Your task to perform on an android device: Open wifi settings Image 0: 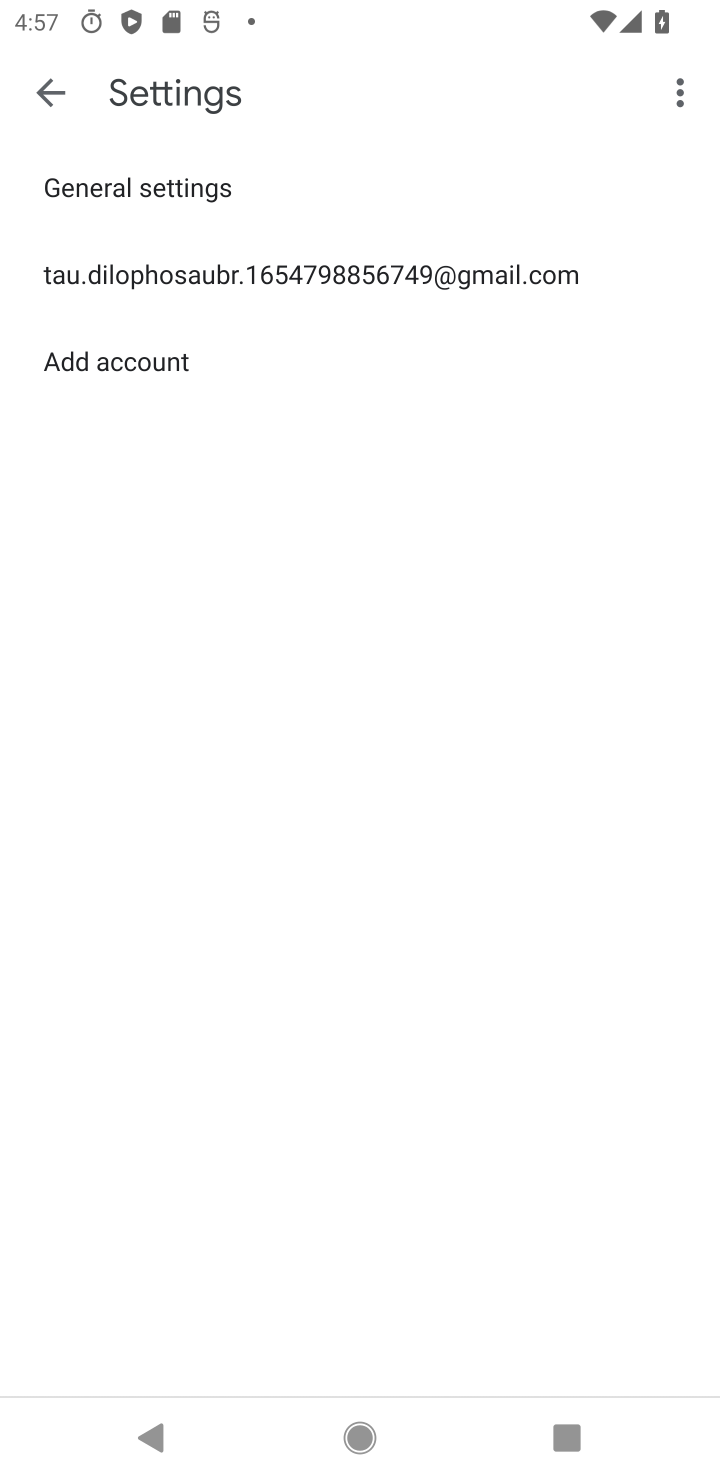
Step 0: click (51, 65)
Your task to perform on an android device: Open wifi settings Image 1: 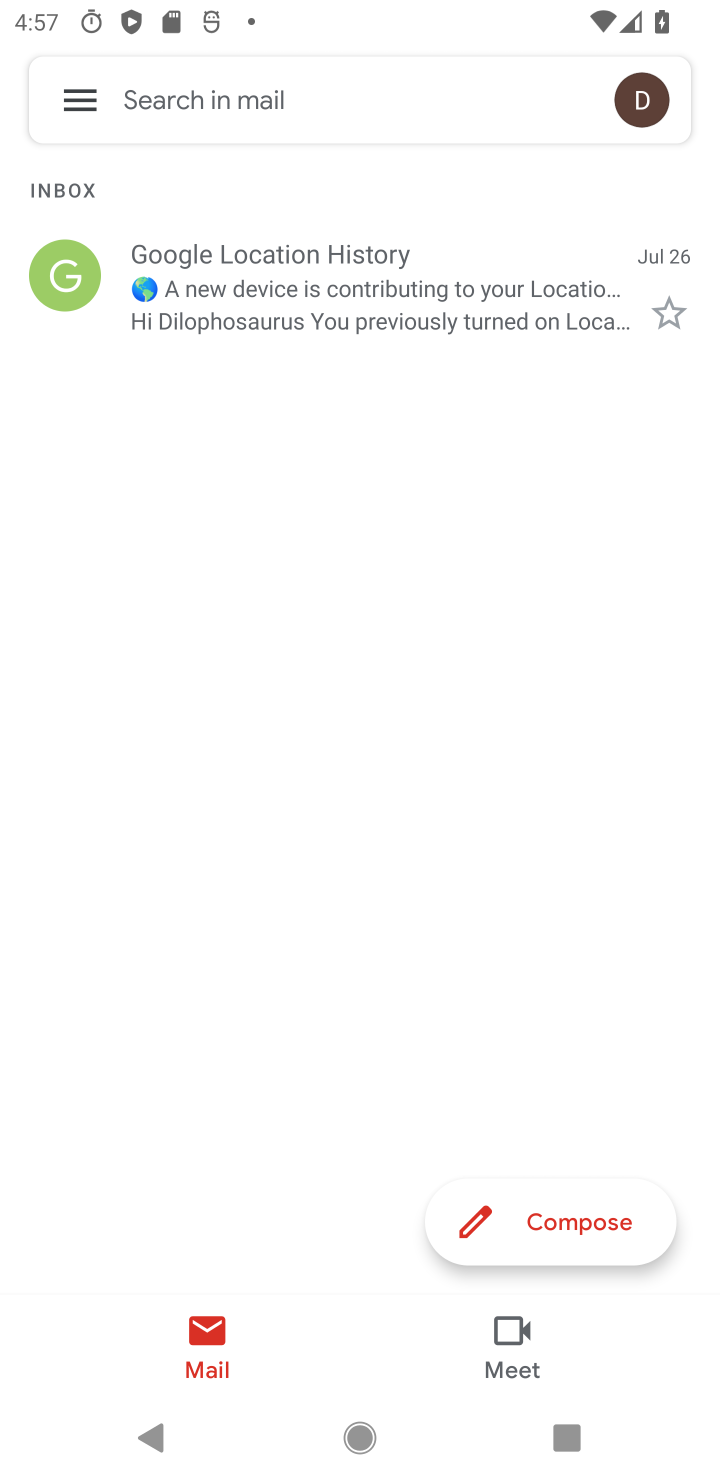
Step 1: press back button
Your task to perform on an android device: Open wifi settings Image 2: 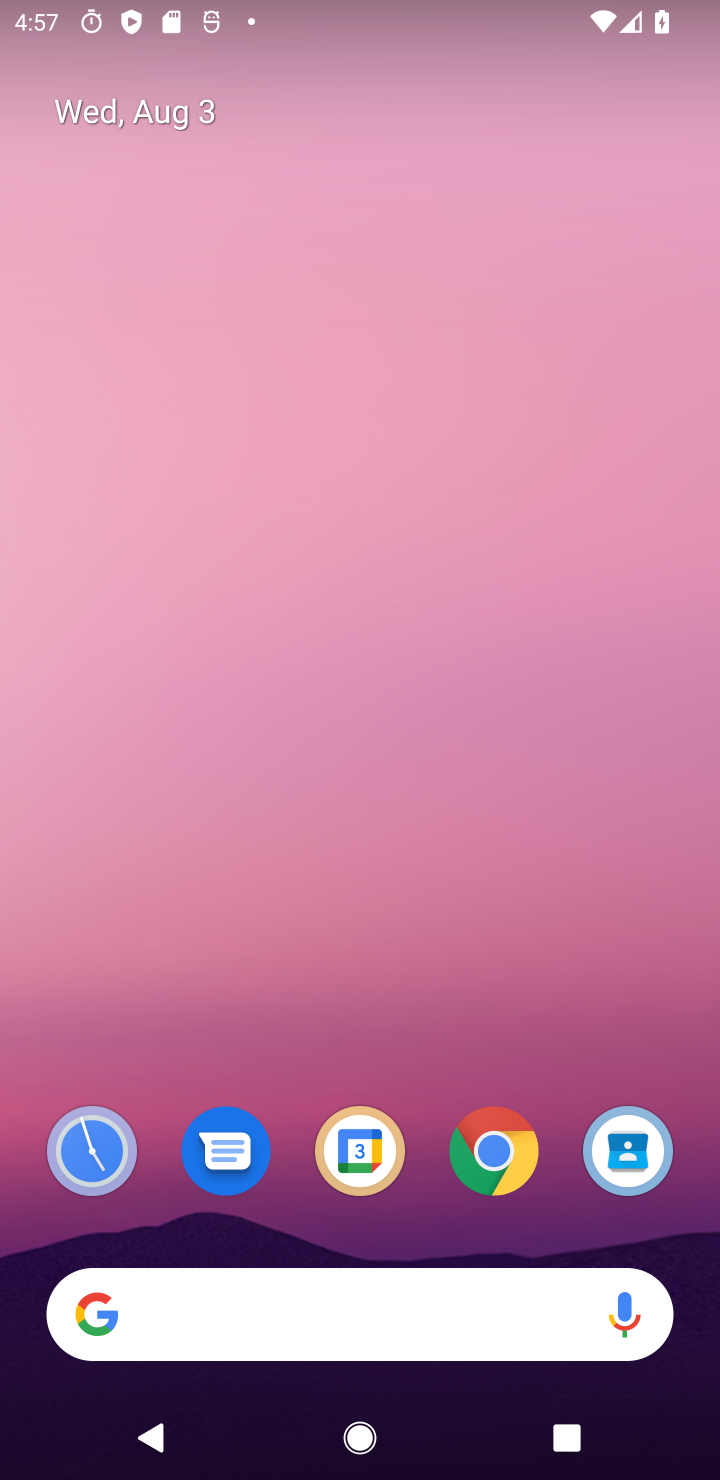
Step 2: drag from (369, 1146) to (367, 488)
Your task to perform on an android device: Open wifi settings Image 3: 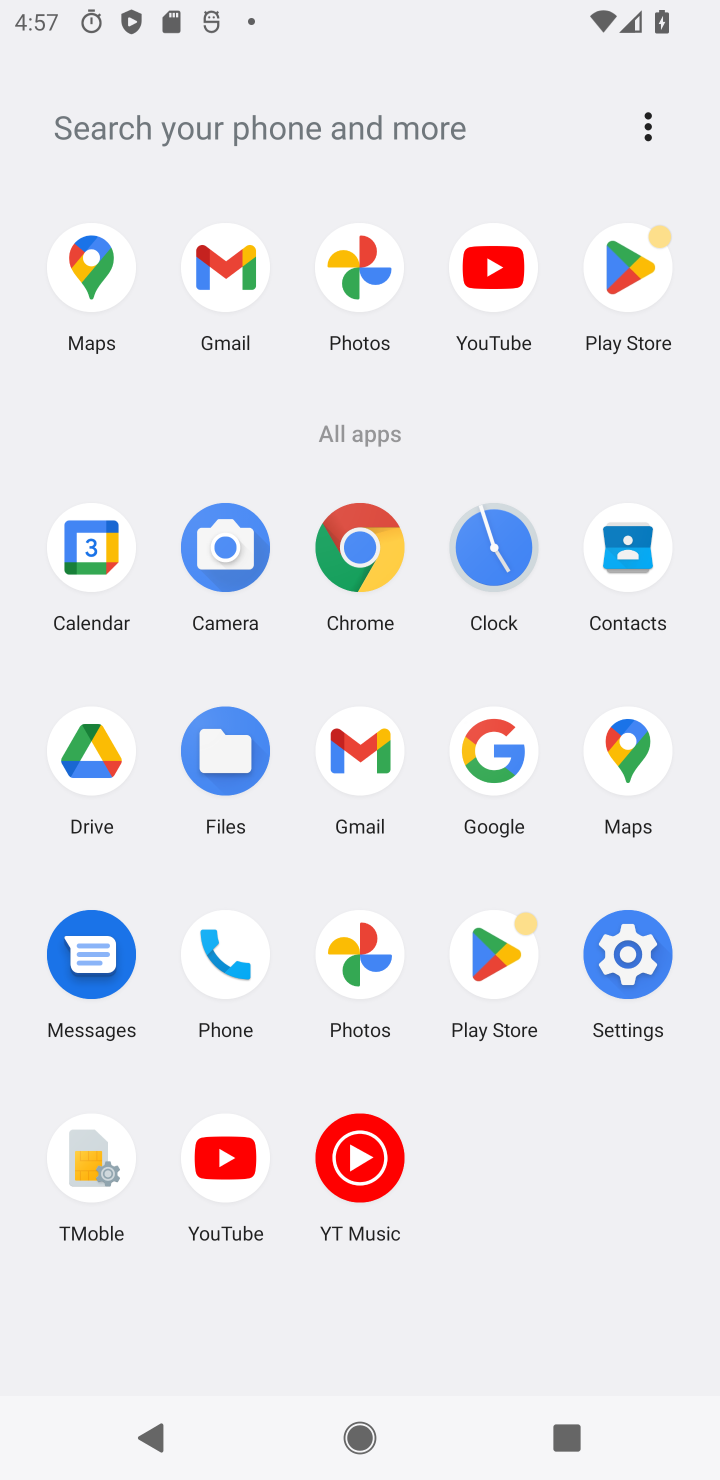
Step 3: click (627, 938)
Your task to perform on an android device: Open wifi settings Image 4: 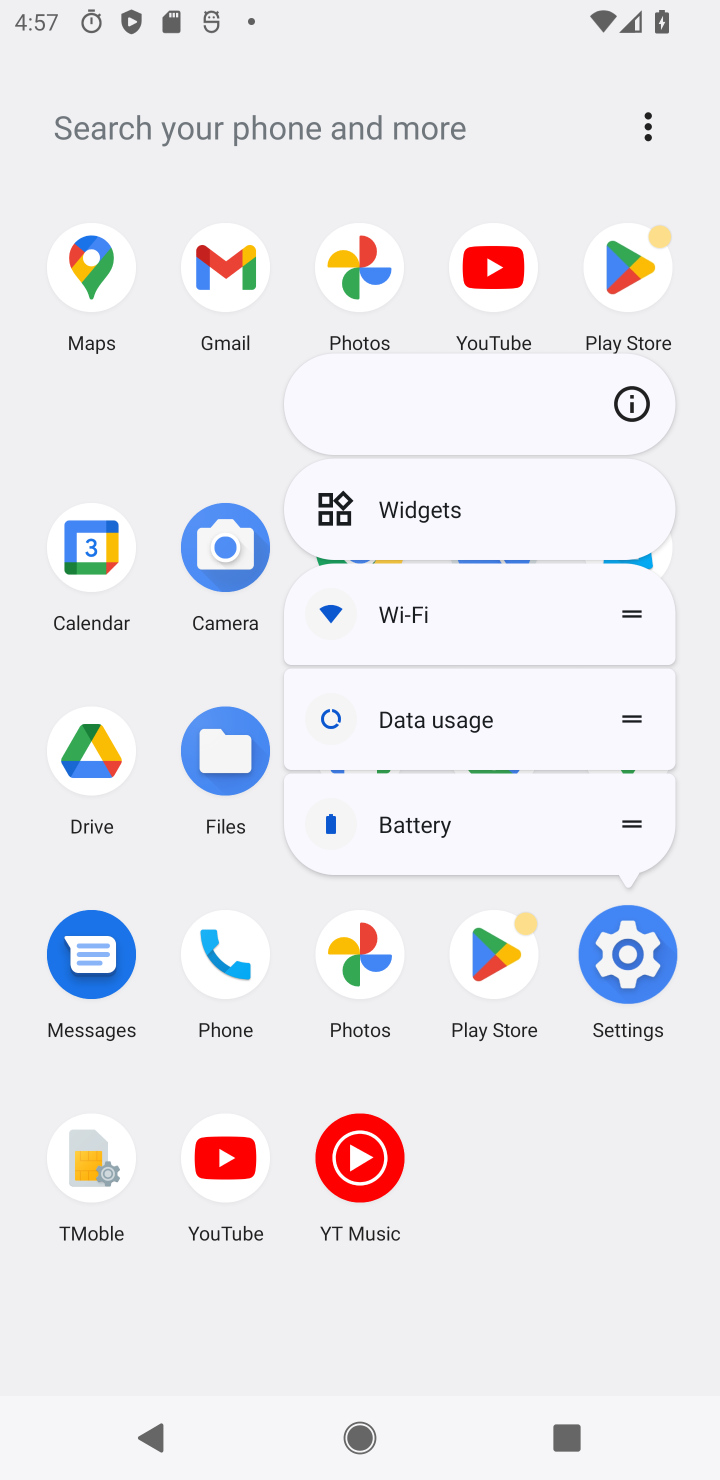
Step 4: click (627, 938)
Your task to perform on an android device: Open wifi settings Image 5: 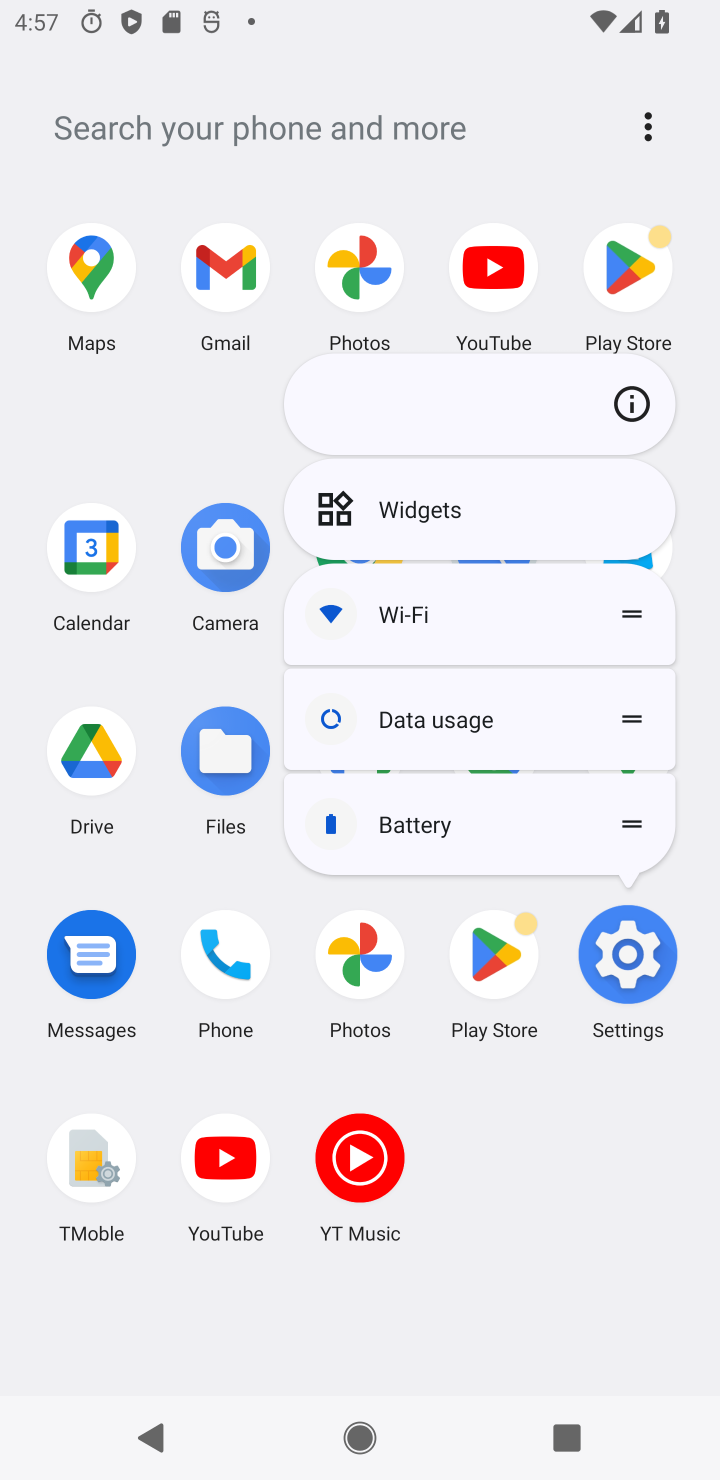
Step 5: click (632, 940)
Your task to perform on an android device: Open wifi settings Image 6: 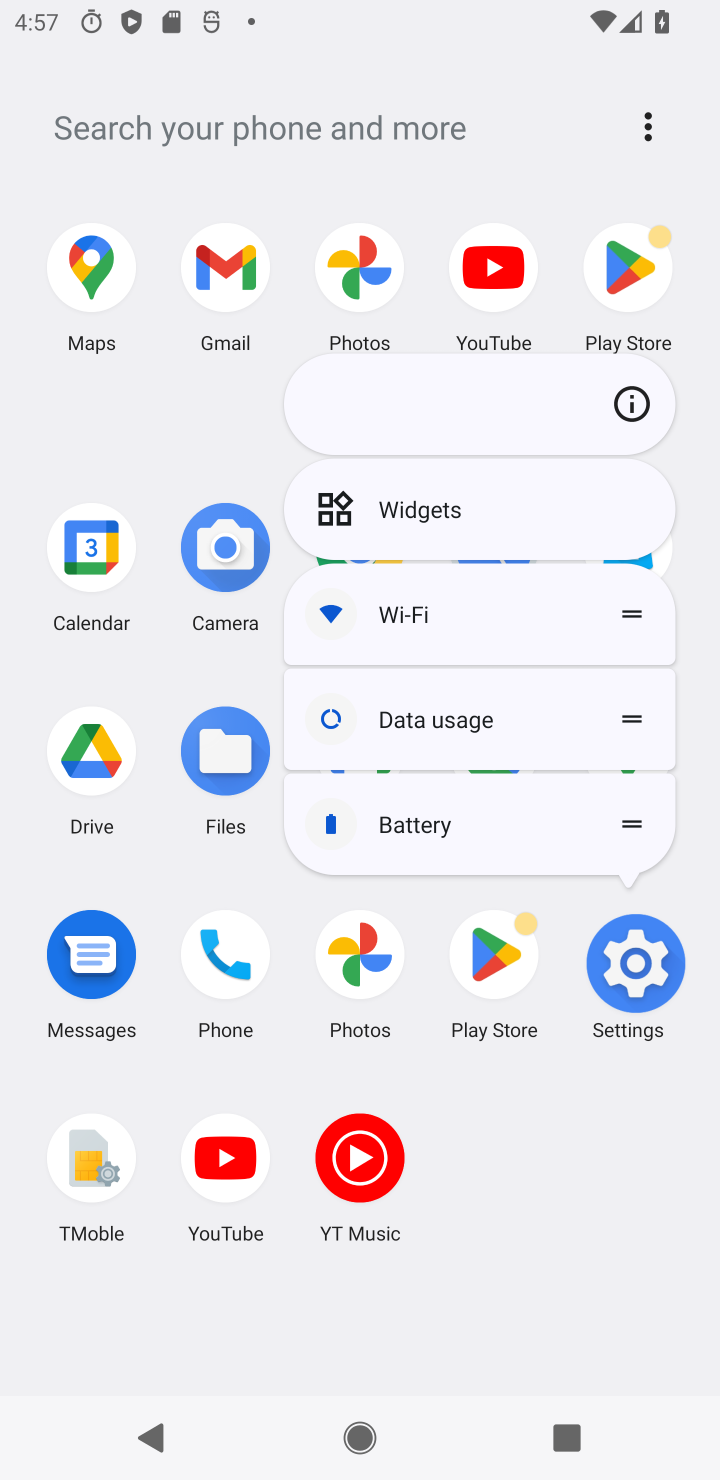
Step 6: click (640, 949)
Your task to perform on an android device: Open wifi settings Image 7: 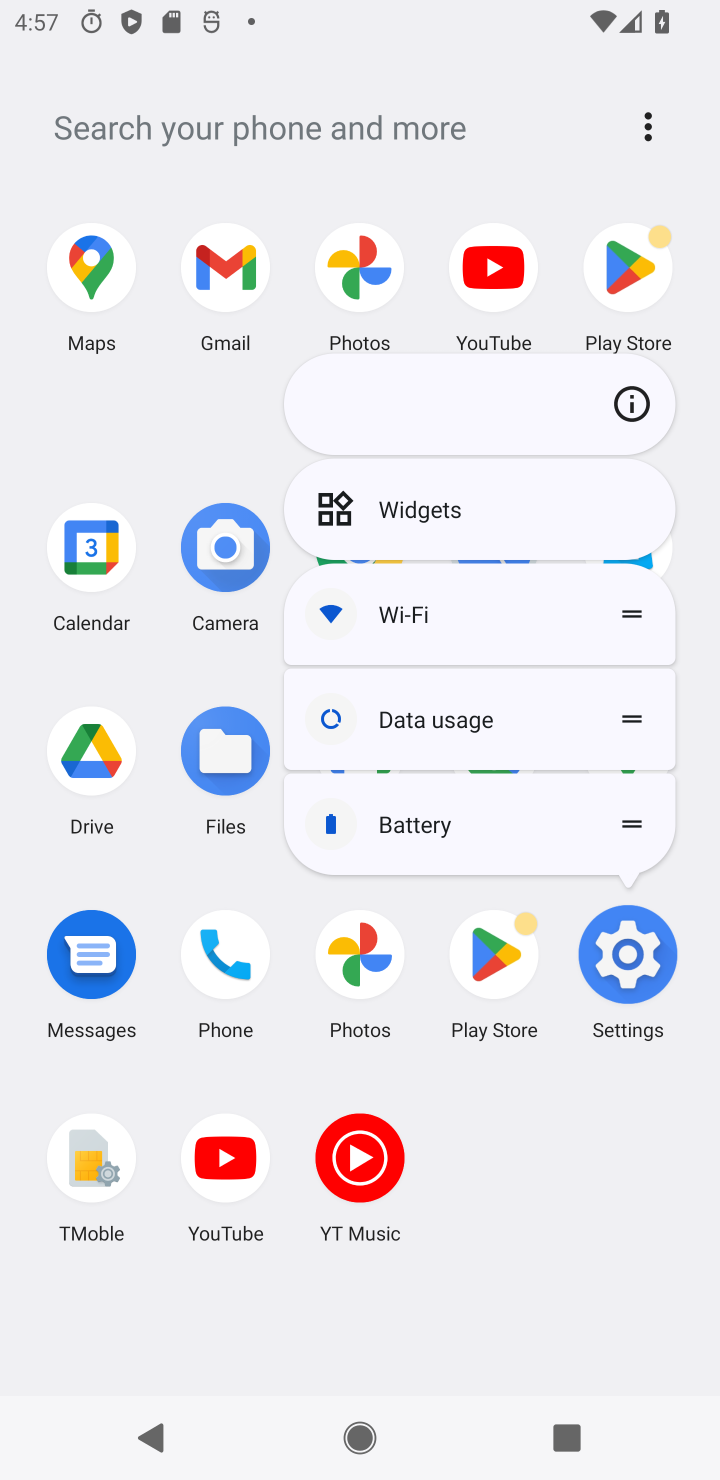
Step 7: click (640, 959)
Your task to perform on an android device: Open wifi settings Image 8: 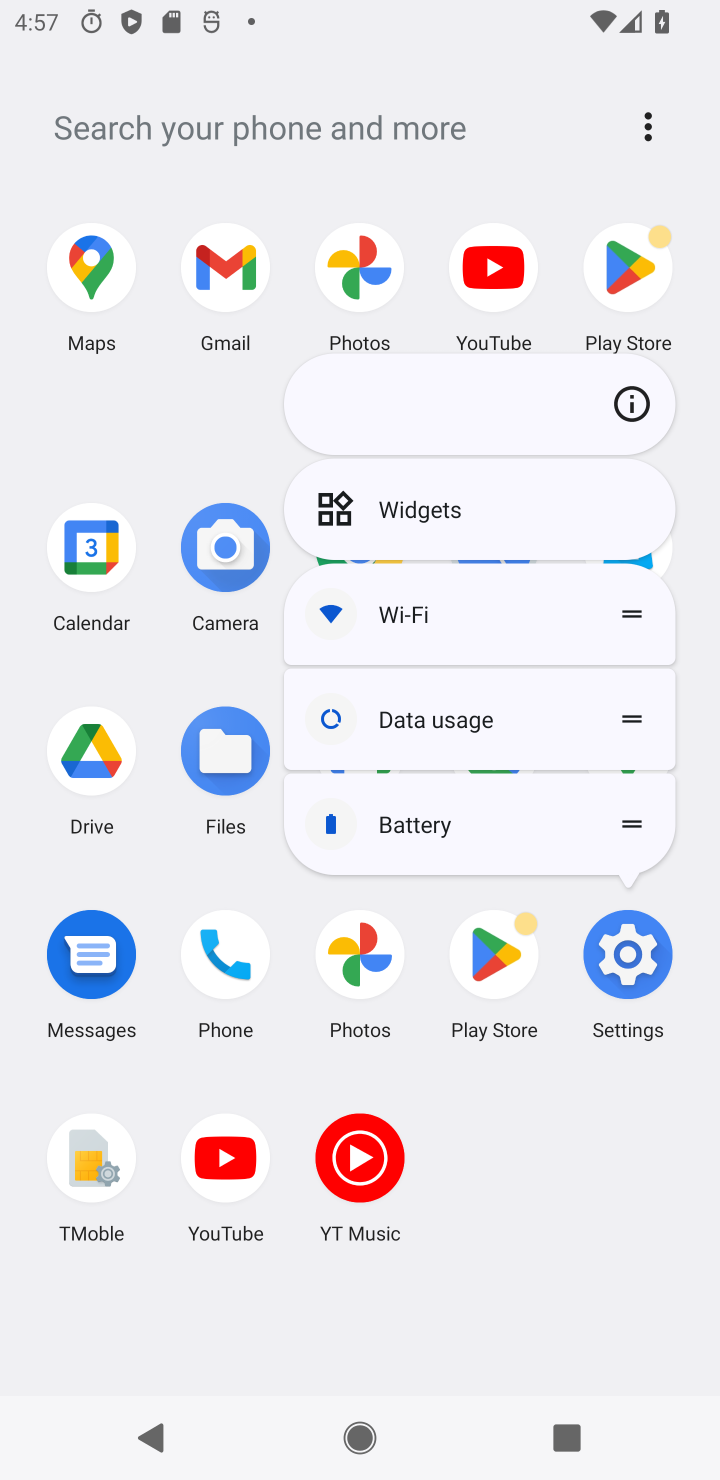
Step 8: click (383, 639)
Your task to perform on an android device: Open wifi settings Image 9: 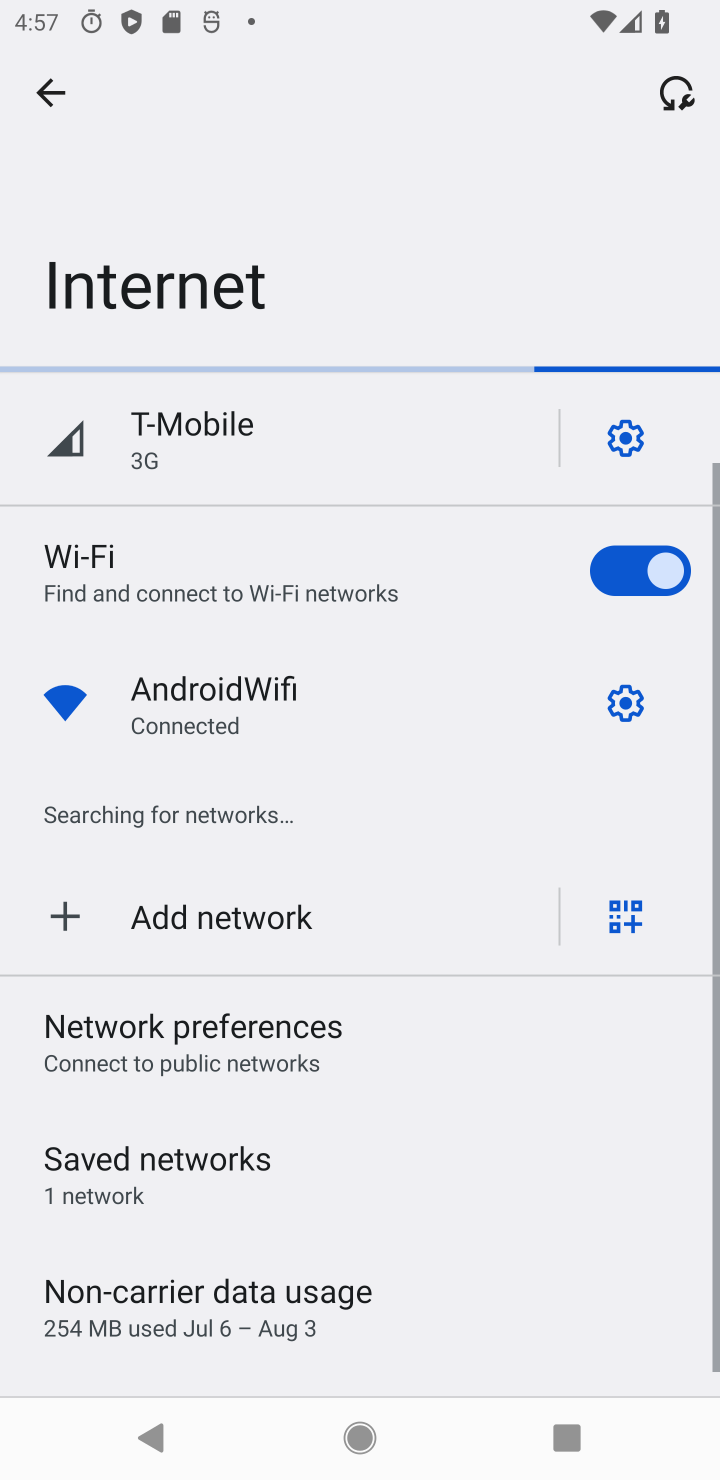
Step 9: drag from (283, 1077) to (241, 514)
Your task to perform on an android device: Open wifi settings Image 10: 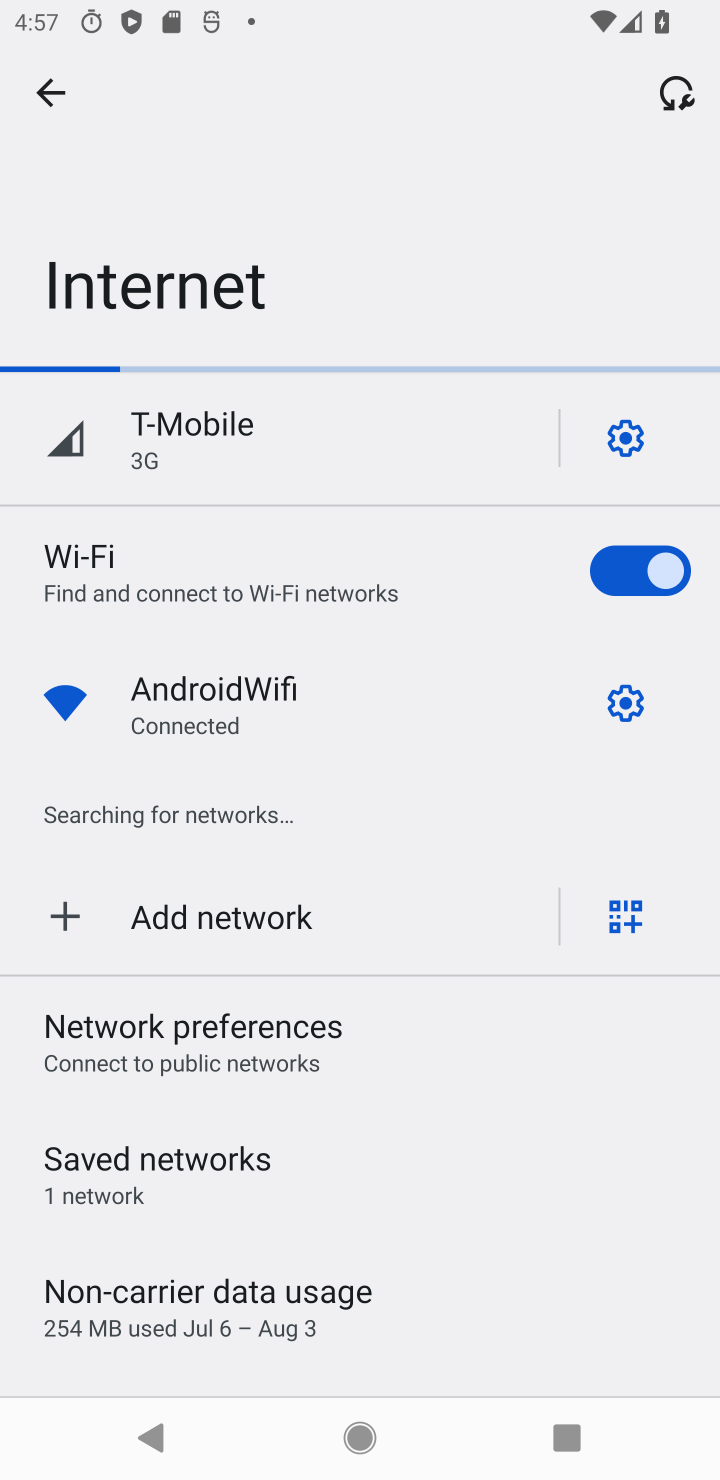
Step 10: drag from (376, 1052) to (356, 547)
Your task to perform on an android device: Open wifi settings Image 11: 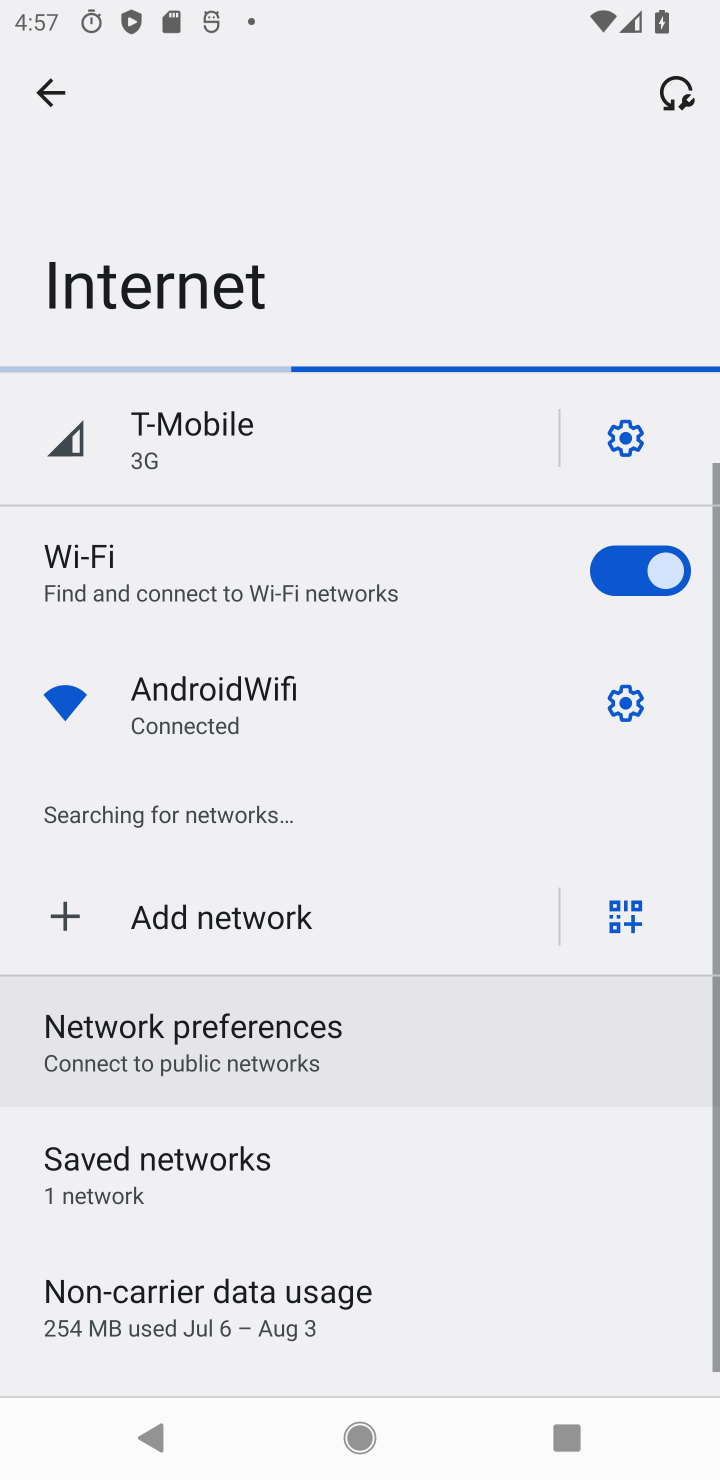
Step 11: click (453, 741)
Your task to perform on an android device: Open wifi settings Image 12: 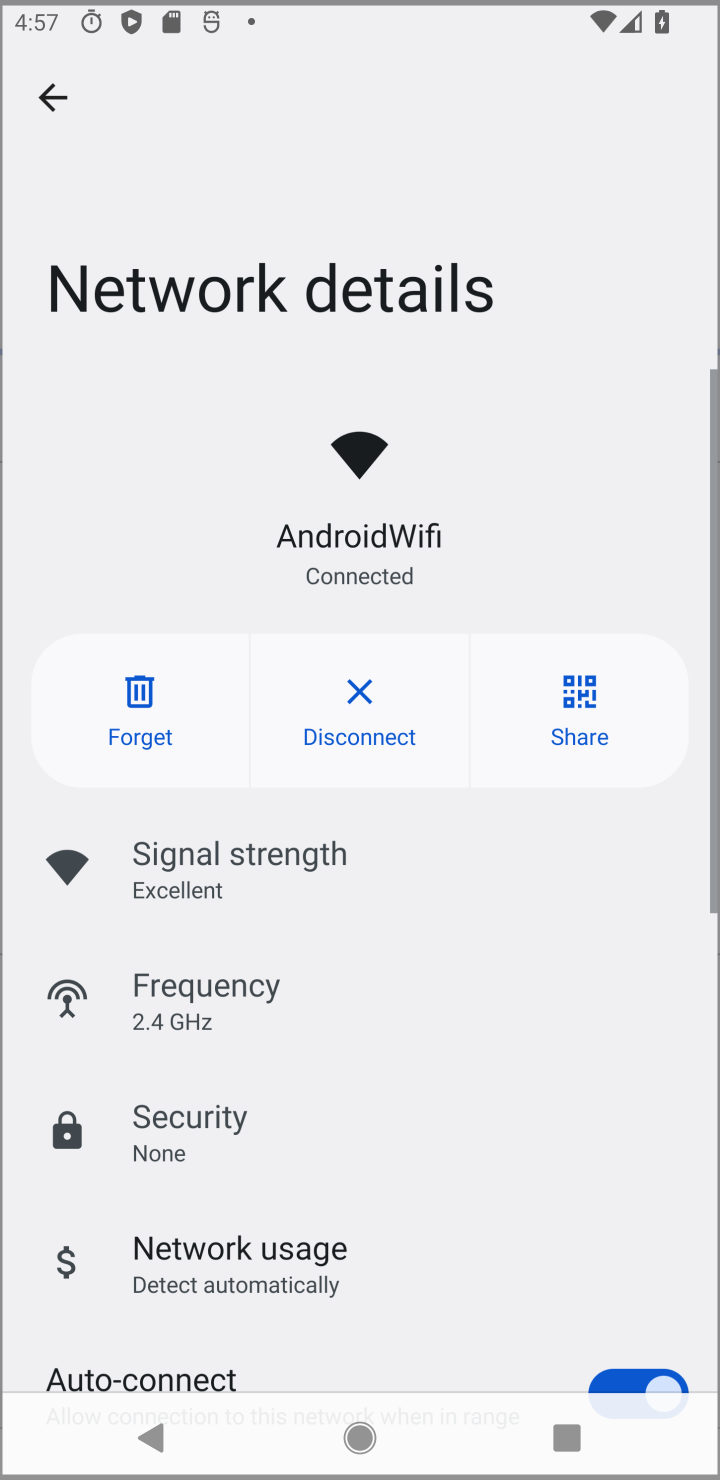
Step 12: task complete